Your task to perform on an android device: What's on my calendar today? Image 0: 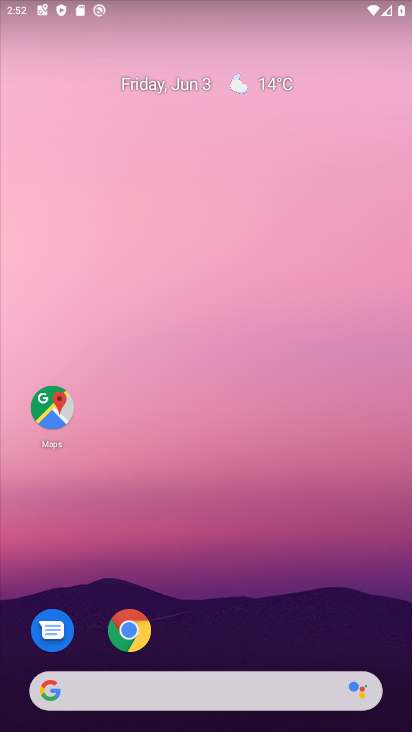
Step 0: drag from (188, 357) to (143, 178)
Your task to perform on an android device: What's on my calendar today? Image 1: 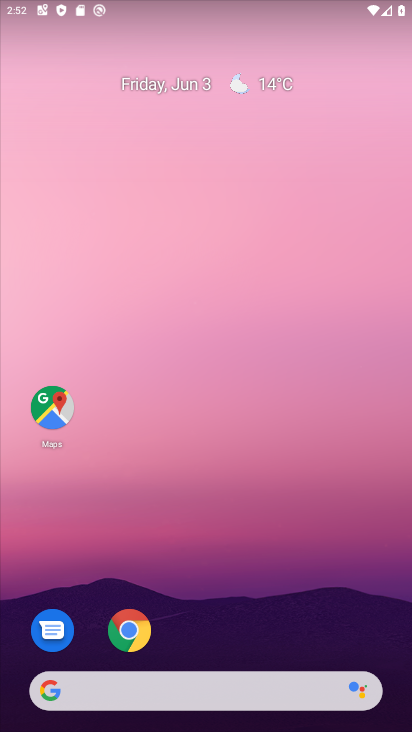
Step 1: drag from (231, 611) to (181, 180)
Your task to perform on an android device: What's on my calendar today? Image 2: 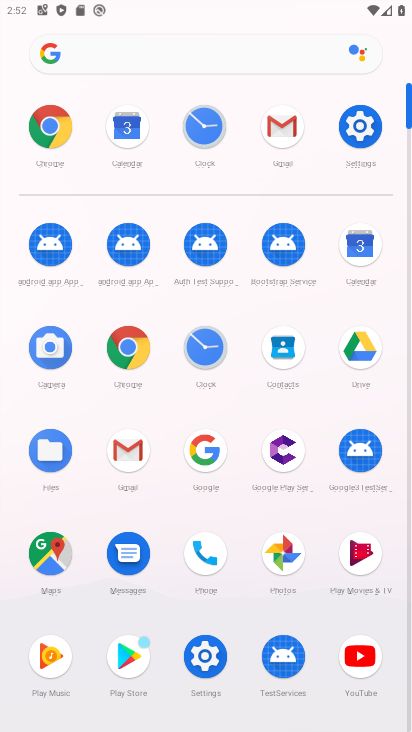
Step 2: click (142, 135)
Your task to perform on an android device: What's on my calendar today? Image 3: 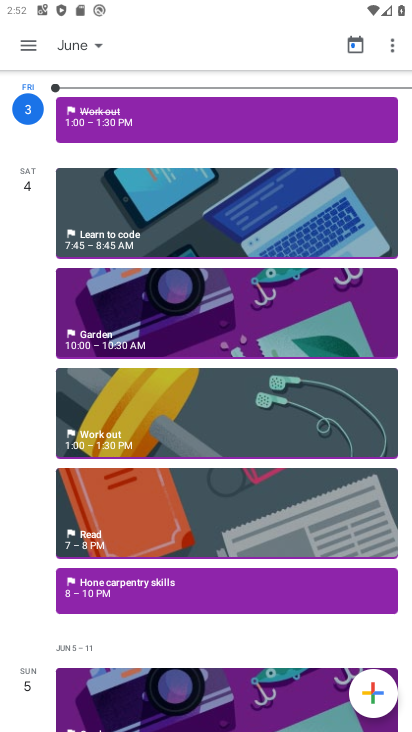
Step 3: task complete